Your task to perform on an android device: Open ESPN.com Image 0: 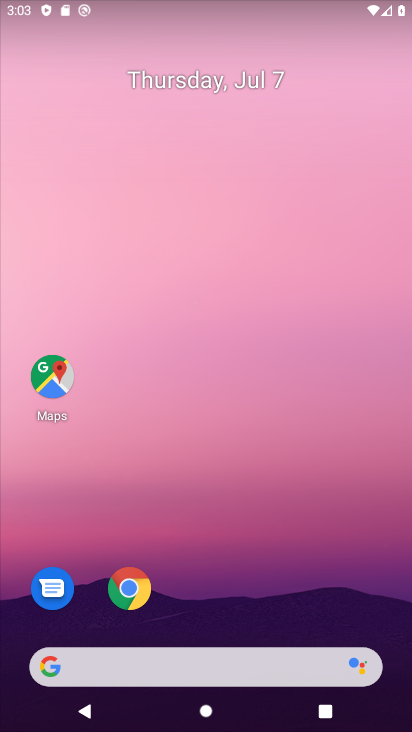
Step 0: click (205, 177)
Your task to perform on an android device: Open ESPN.com Image 1: 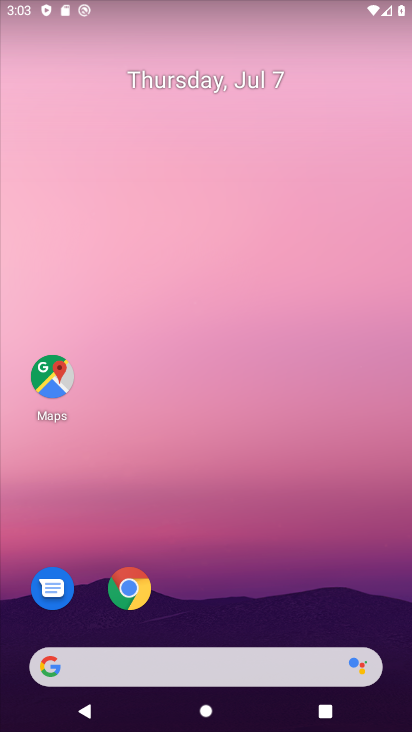
Step 1: drag from (254, 696) to (195, 103)
Your task to perform on an android device: Open ESPN.com Image 2: 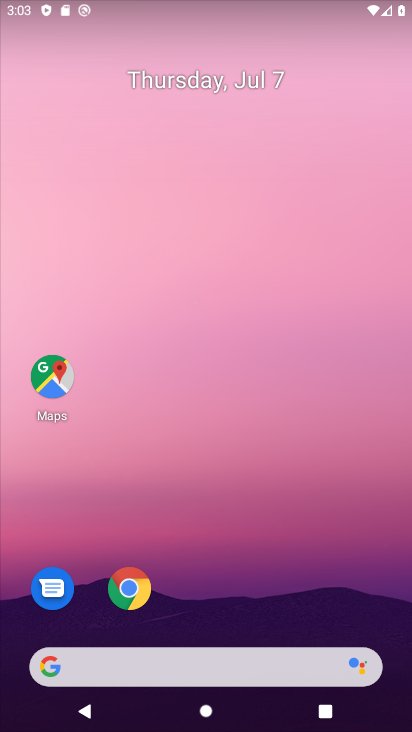
Step 2: drag from (248, 305) to (222, 134)
Your task to perform on an android device: Open ESPN.com Image 3: 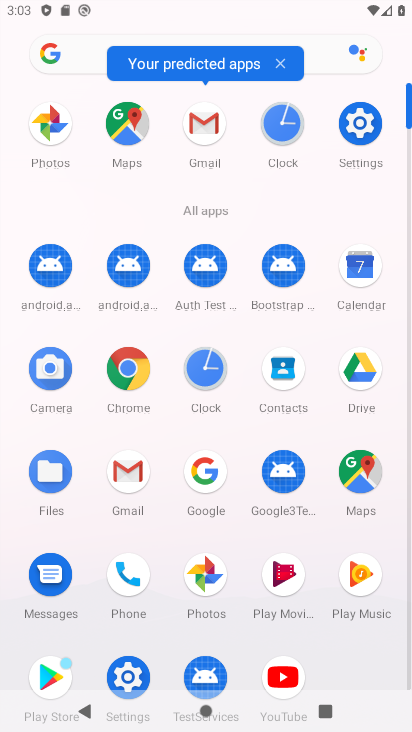
Step 3: click (128, 370)
Your task to perform on an android device: Open ESPN.com Image 4: 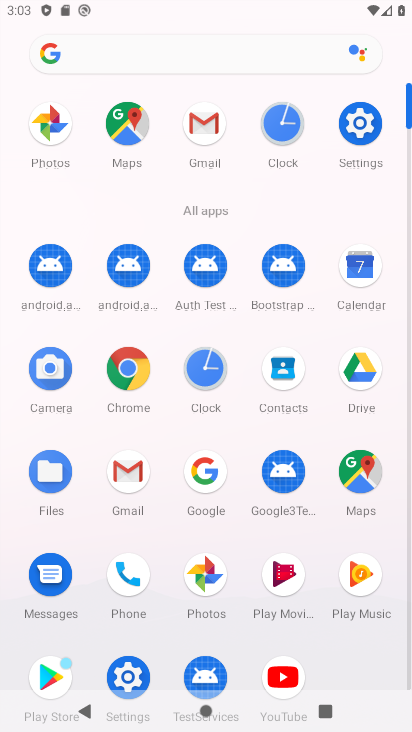
Step 4: click (129, 371)
Your task to perform on an android device: Open ESPN.com Image 5: 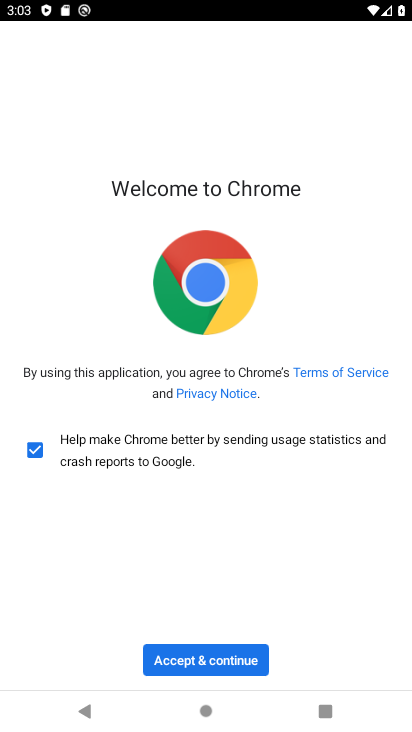
Step 5: click (204, 654)
Your task to perform on an android device: Open ESPN.com Image 6: 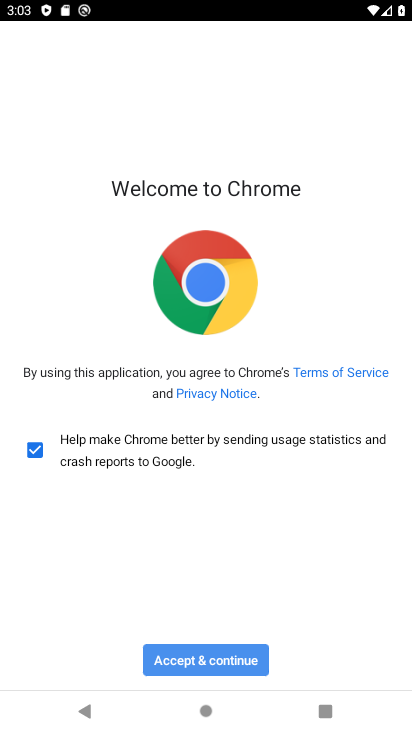
Step 6: click (204, 654)
Your task to perform on an android device: Open ESPN.com Image 7: 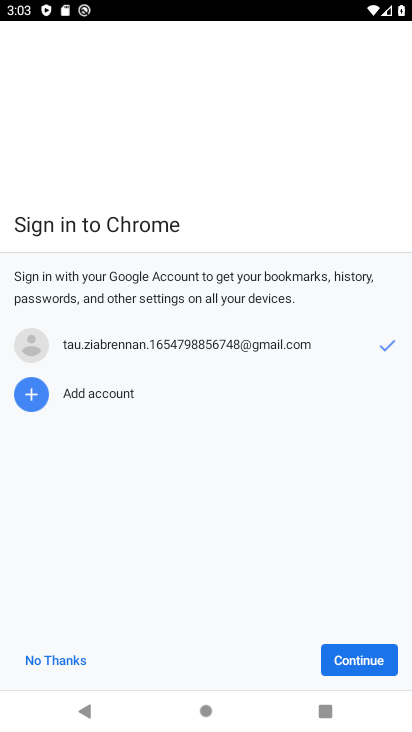
Step 7: click (363, 660)
Your task to perform on an android device: Open ESPN.com Image 8: 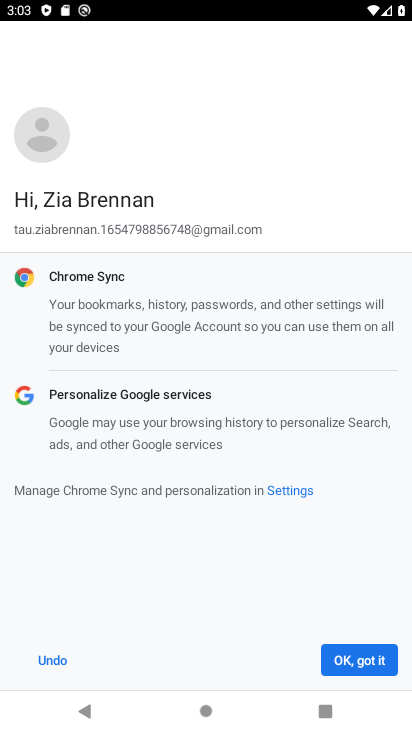
Step 8: click (355, 660)
Your task to perform on an android device: Open ESPN.com Image 9: 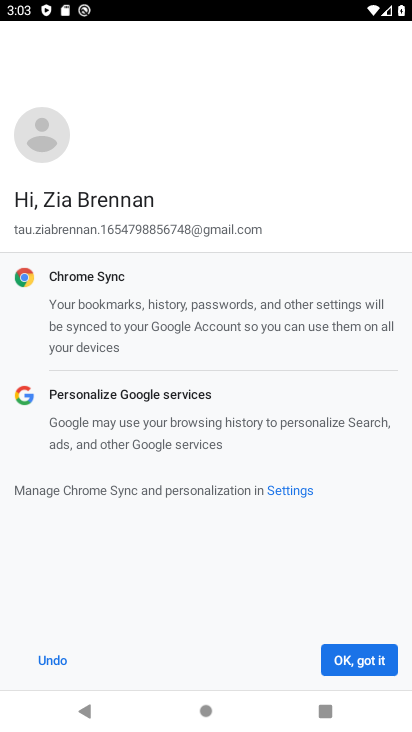
Step 9: click (354, 661)
Your task to perform on an android device: Open ESPN.com Image 10: 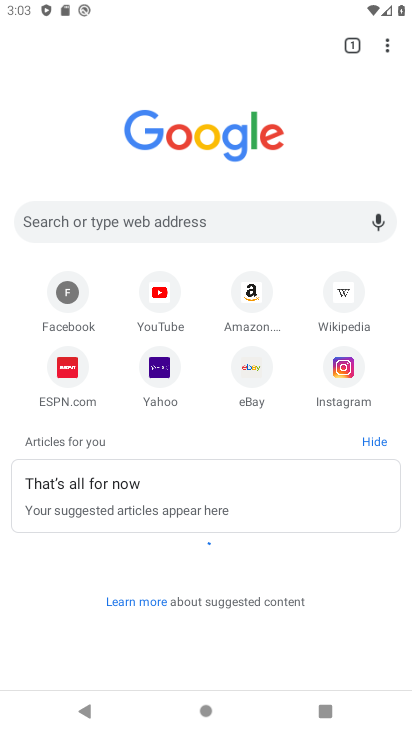
Step 10: click (70, 356)
Your task to perform on an android device: Open ESPN.com Image 11: 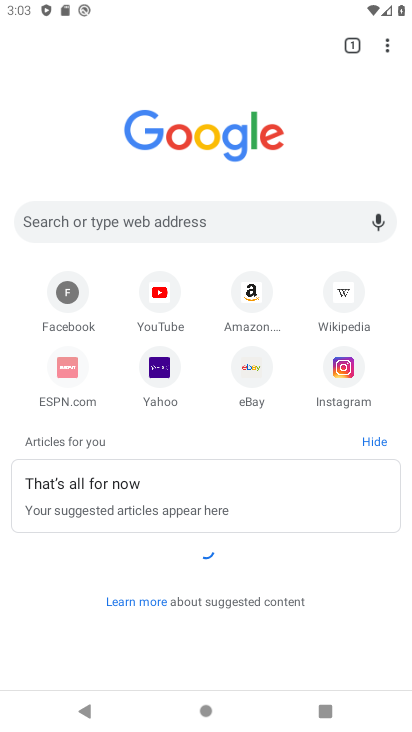
Step 11: click (70, 355)
Your task to perform on an android device: Open ESPN.com Image 12: 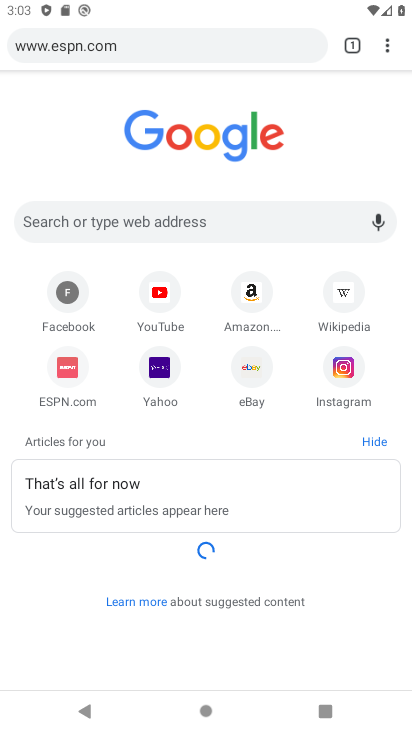
Step 12: click (70, 355)
Your task to perform on an android device: Open ESPN.com Image 13: 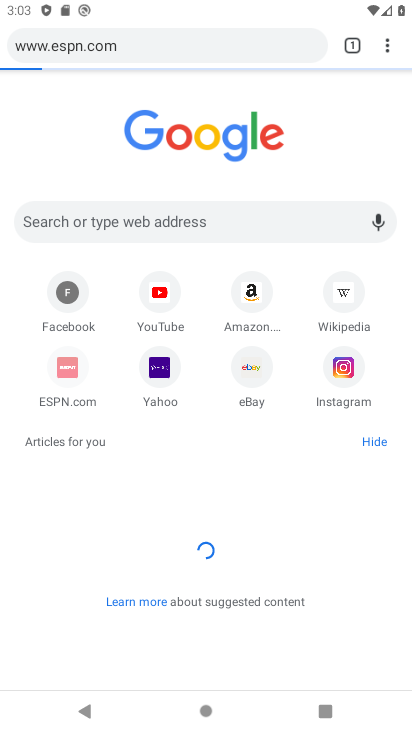
Step 13: click (70, 354)
Your task to perform on an android device: Open ESPN.com Image 14: 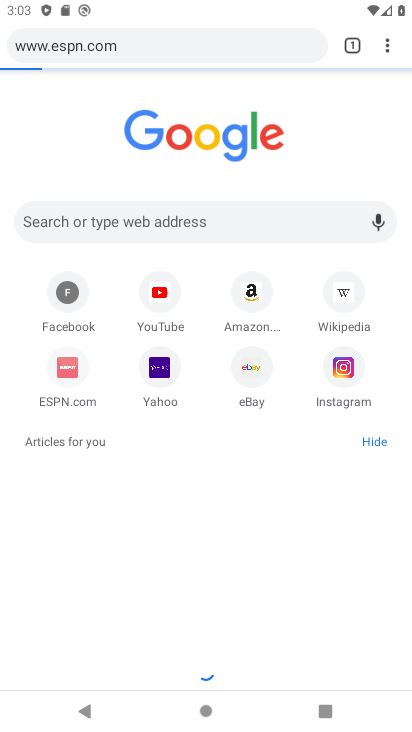
Step 14: click (70, 354)
Your task to perform on an android device: Open ESPN.com Image 15: 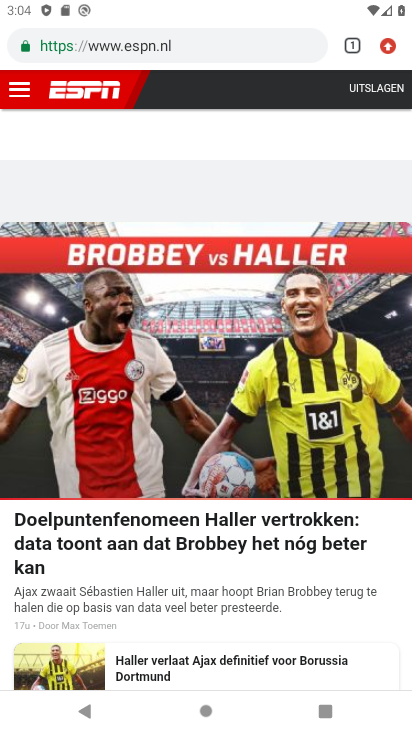
Step 15: task complete